Your task to perform on an android device: Search for sushi restaurants on Maps Image 0: 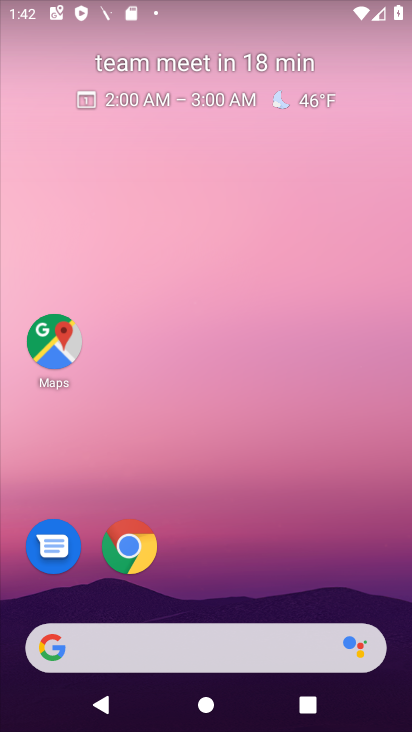
Step 0: click (52, 334)
Your task to perform on an android device: Search for sushi restaurants on Maps Image 1: 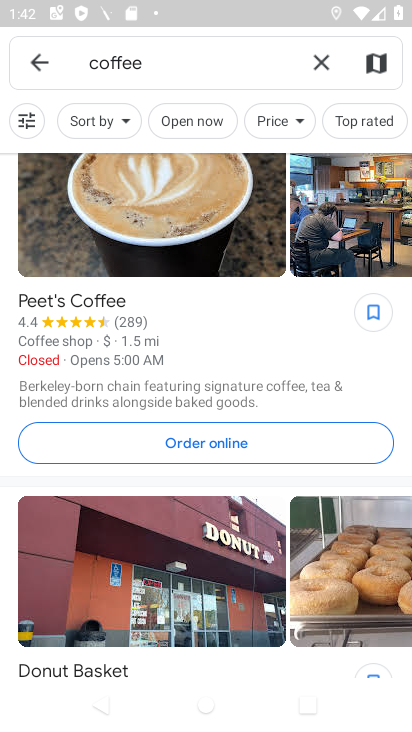
Step 1: click (323, 54)
Your task to perform on an android device: Search for sushi restaurants on Maps Image 2: 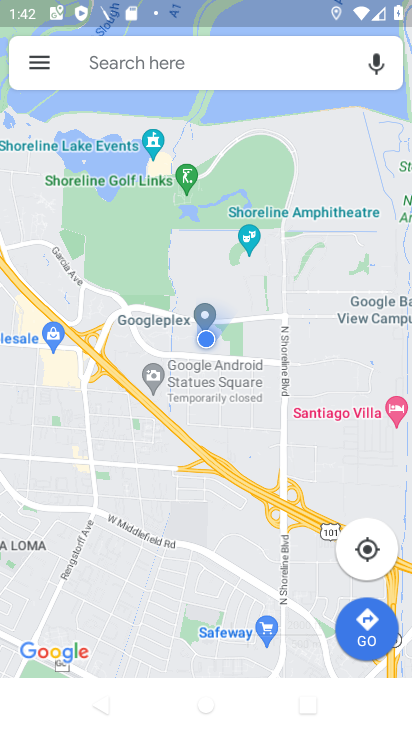
Step 2: click (116, 59)
Your task to perform on an android device: Search for sushi restaurants on Maps Image 3: 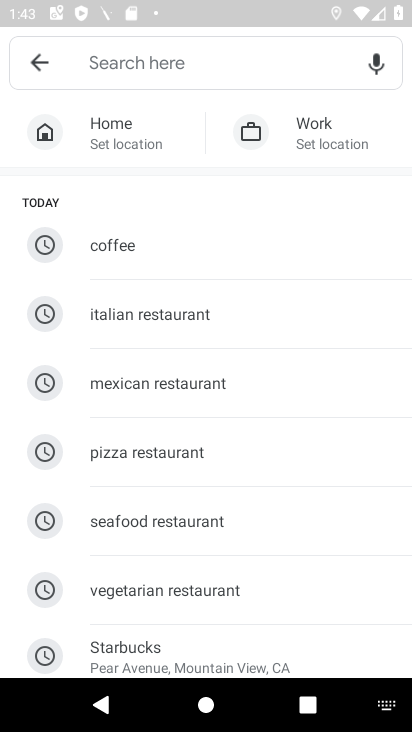
Step 3: type "sushi restaurants"
Your task to perform on an android device: Search for sushi restaurants on Maps Image 4: 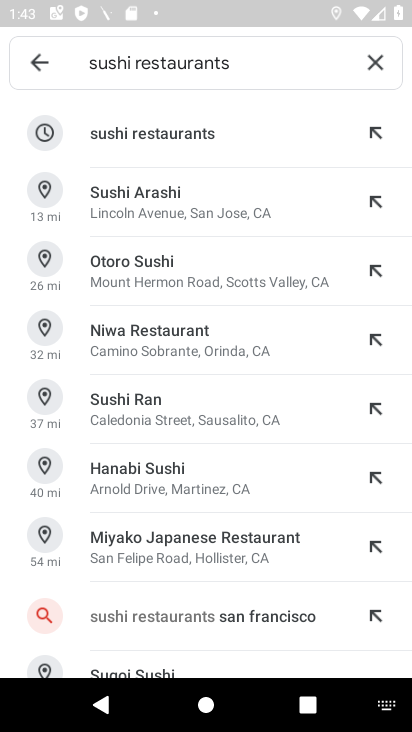
Step 4: click (150, 149)
Your task to perform on an android device: Search for sushi restaurants on Maps Image 5: 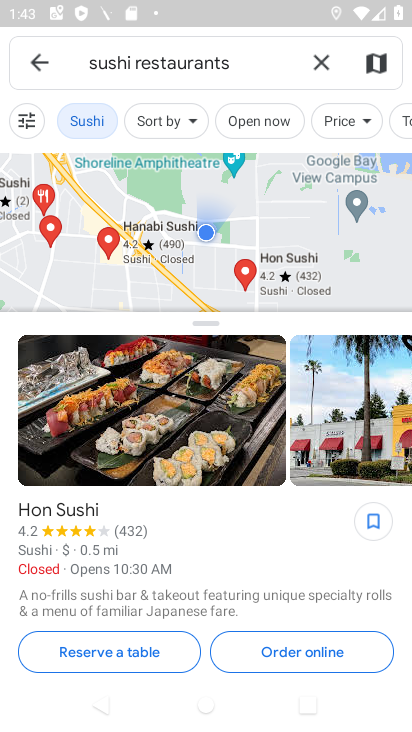
Step 5: task complete